Your task to perform on an android device: turn on data saver in the chrome app Image 0: 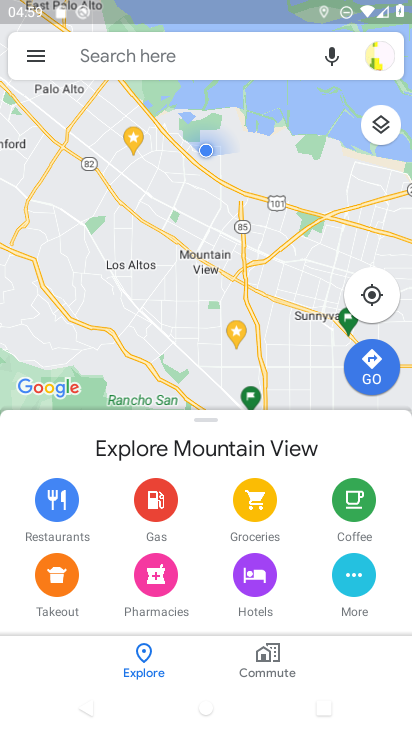
Step 0: press home button
Your task to perform on an android device: turn on data saver in the chrome app Image 1: 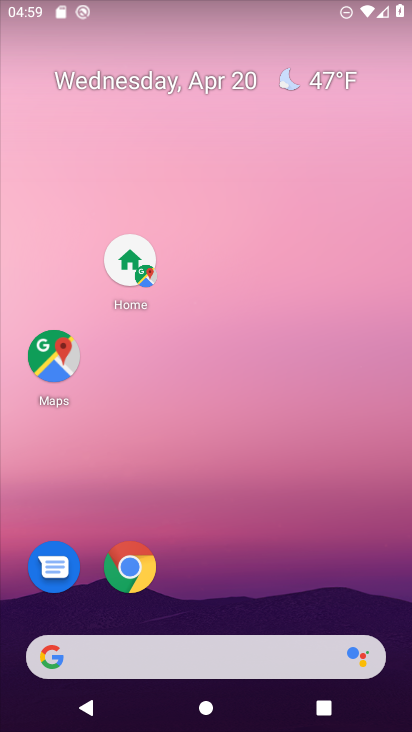
Step 1: click (127, 571)
Your task to perform on an android device: turn on data saver in the chrome app Image 2: 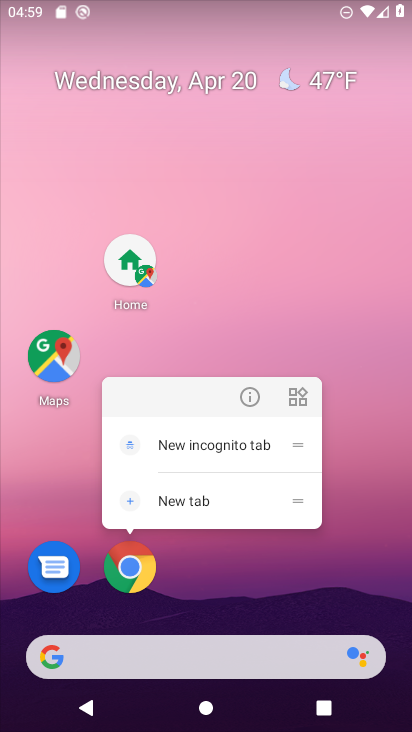
Step 2: click (187, 508)
Your task to perform on an android device: turn on data saver in the chrome app Image 3: 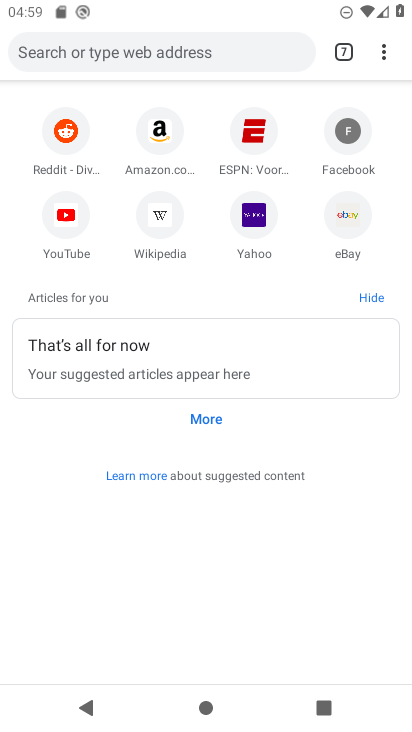
Step 3: click (381, 55)
Your task to perform on an android device: turn on data saver in the chrome app Image 4: 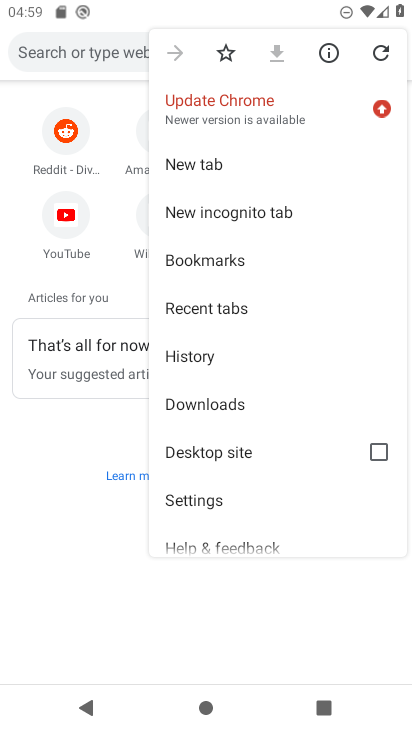
Step 4: click (212, 501)
Your task to perform on an android device: turn on data saver in the chrome app Image 5: 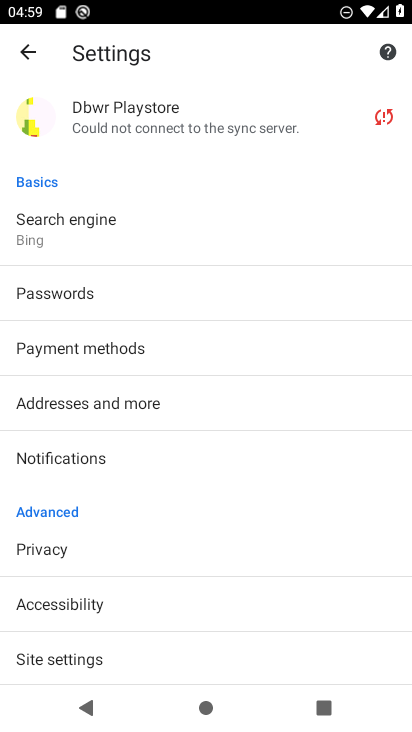
Step 5: drag from (240, 620) to (157, 202)
Your task to perform on an android device: turn on data saver in the chrome app Image 6: 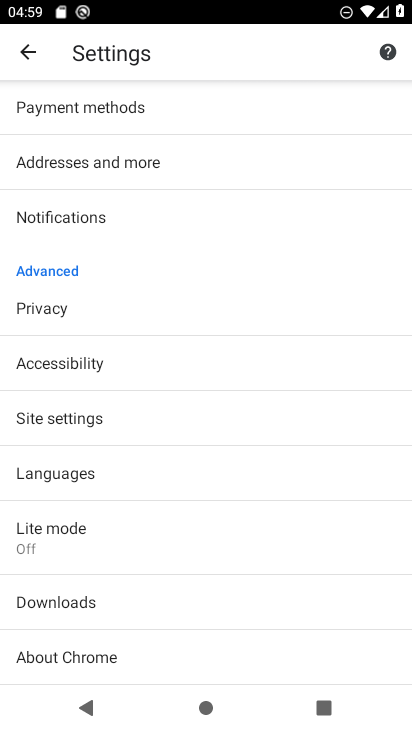
Step 6: click (284, 533)
Your task to perform on an android device: turn on data saver in the chrome app Image 7: 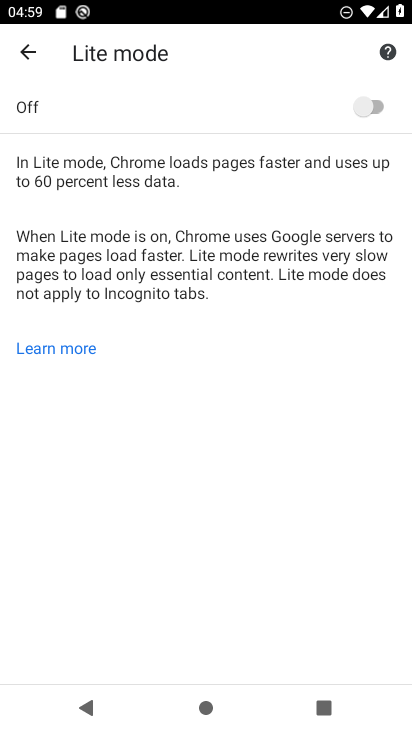
Step 7: click (364, 114)
Your task to perform on an android device: turn on data saver in the chrome app Image 8: 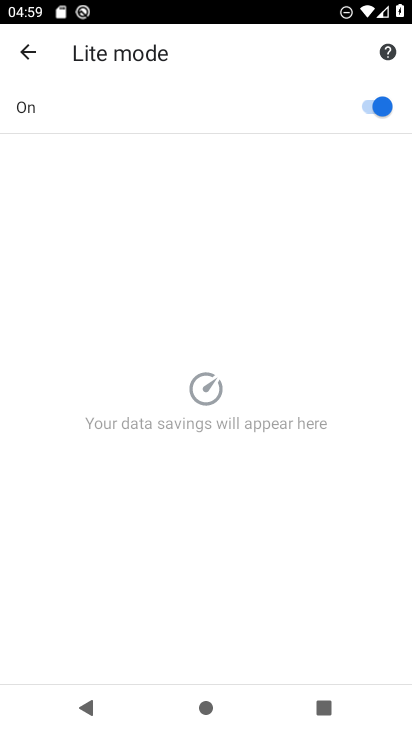
Step 8: task complete